Your task to perform on an android device: allow cookies in the chrome app Image 0: 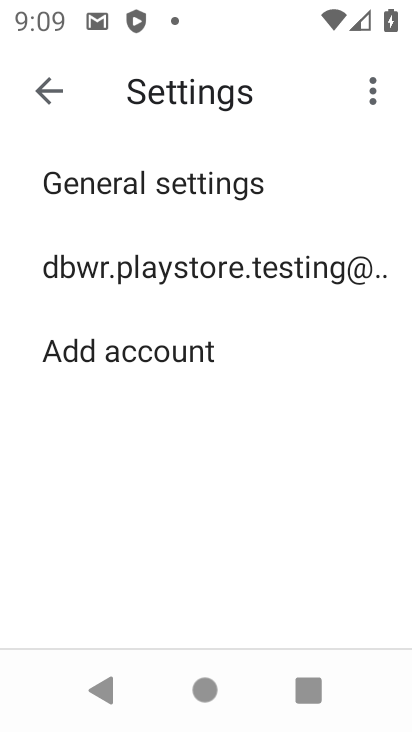
Step 0: press home button
Your task to perform on an android device: allow cookies in the chrome app Image 1: 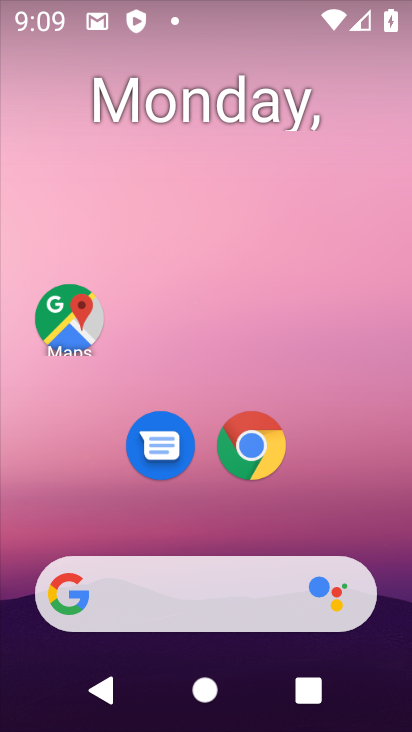
Step 1: click (281, 448)
Your task to perform on an android device: allow cookies in the chrome app Image 2: 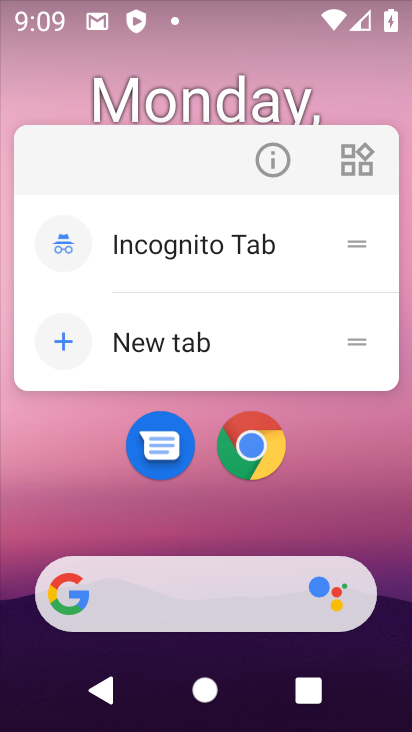
Step 2: click (281, 448)
Your task to perform on an android device: allow cookies in the chrome app Image 3: 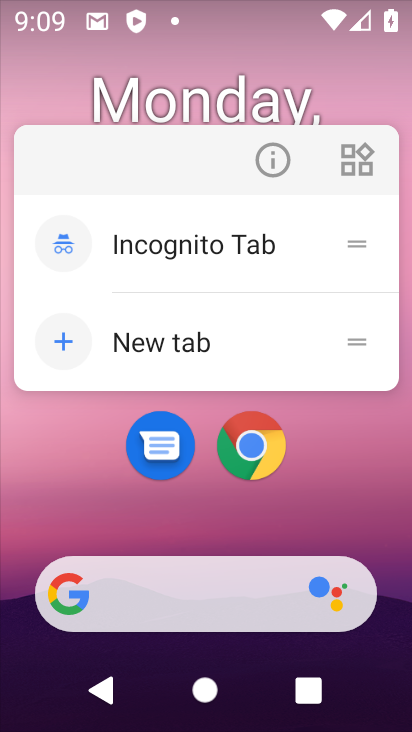
Step 3: click (281, 448)
Your task to perform on an android device: allow cookies in the chrome app Image 4: 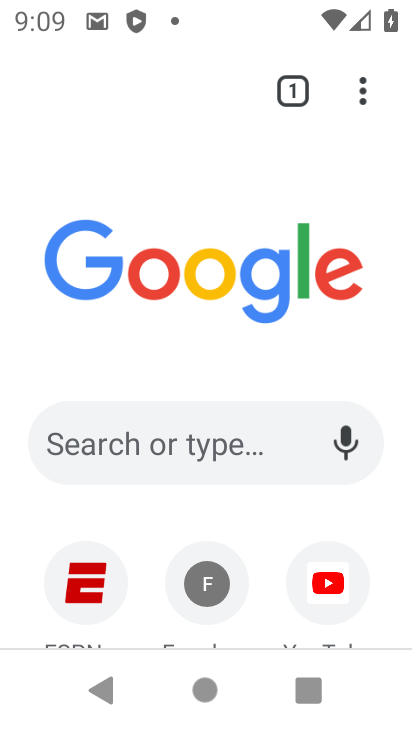
Step 4: click (363, 93)
Your task to perform on an android device: allow cookies in the chrome app Image 5: 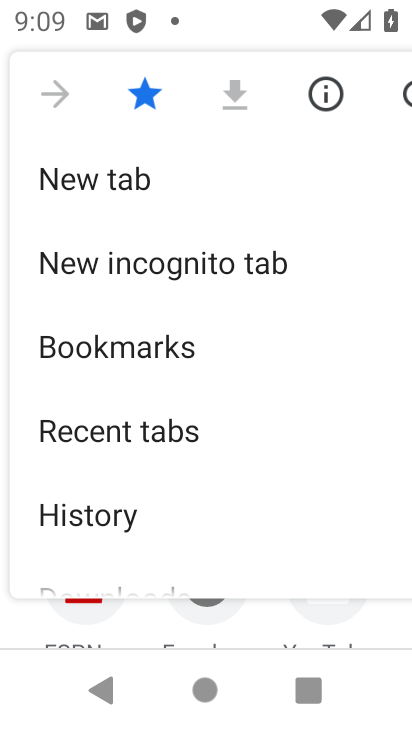
Step 5: drag from (216, 543) to (217, 79)
Your task to perform on an android device: allow cookies in the chrome app Image 6: 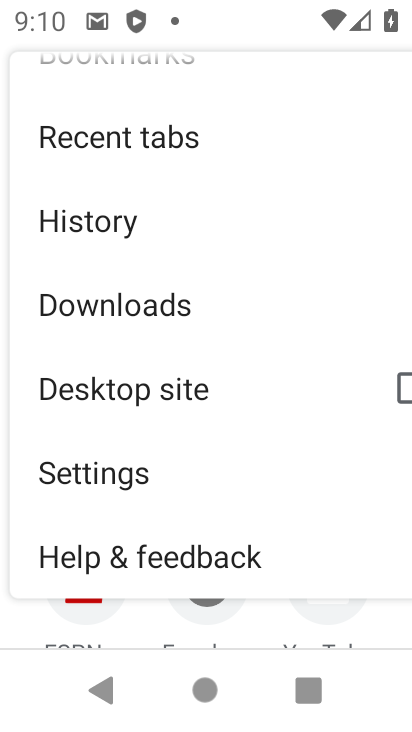
Step 6: click (115, 481)
Your task to perform on an android device: allow cookies in the chrome app Image 7: 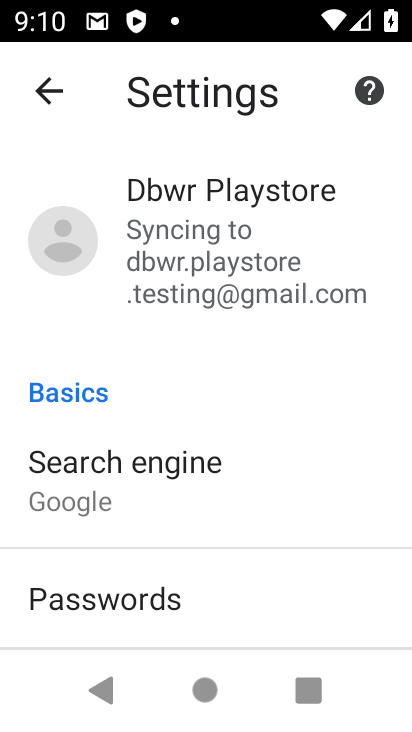
Step 7: drag from (146, 542) to (223, 40)
Your task to perform on an android device: allow cookies in the chrome app Image 8: 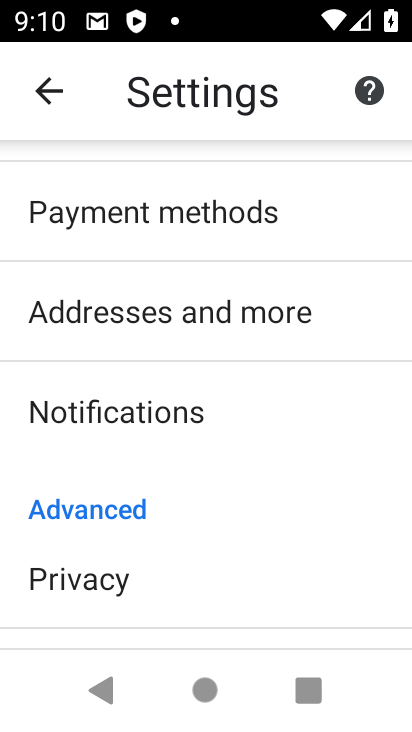
Step 8: drag from (267, 586) to (158, 0)
Your task to perform on an android device: allow cookies in the chrome app Image 9: 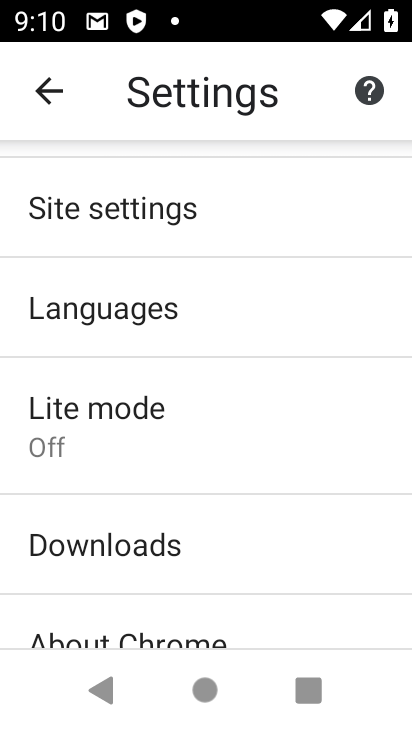
Step 9: click (282, 206)
Your task to perform on an android device: allow cookies in the chrome app Image 10: 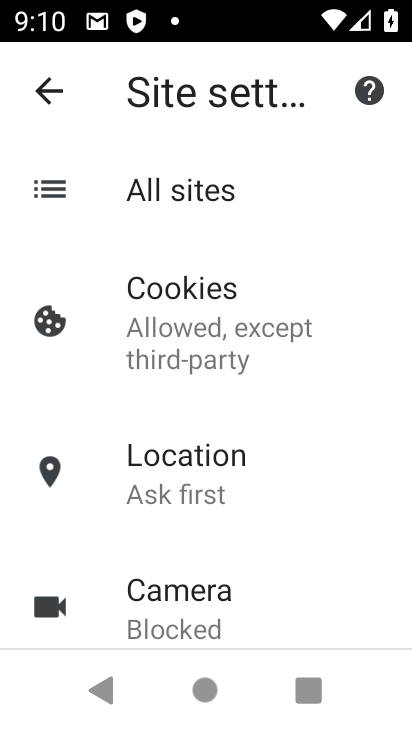
Step 10: click (266, 306)
Your task to perform on an android device: allow cookies in the chrome app Image 11: 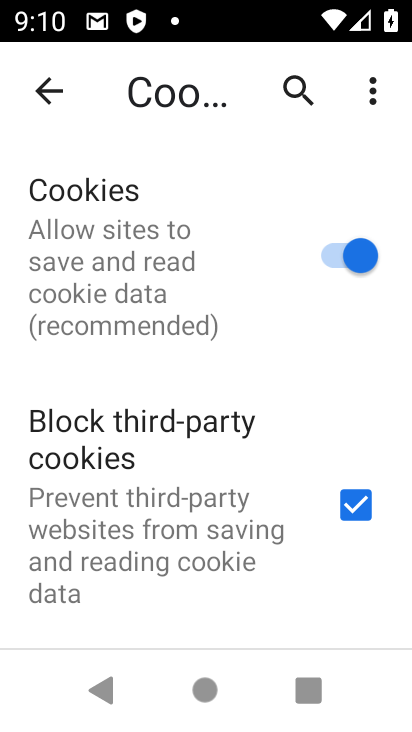
Step 11: task complete